Your task to perform on an android device: Go to Wikipedia Image 0: 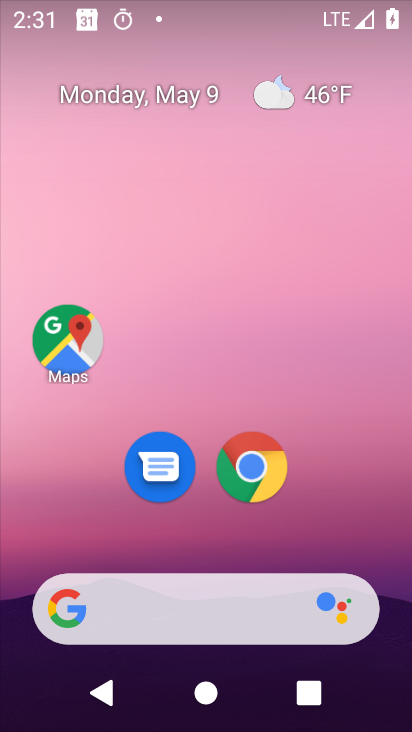
Step 0: drag from (342, 502) to (302, 106)
Your task to perform on an android device: Go to Wikipedia Image 1: 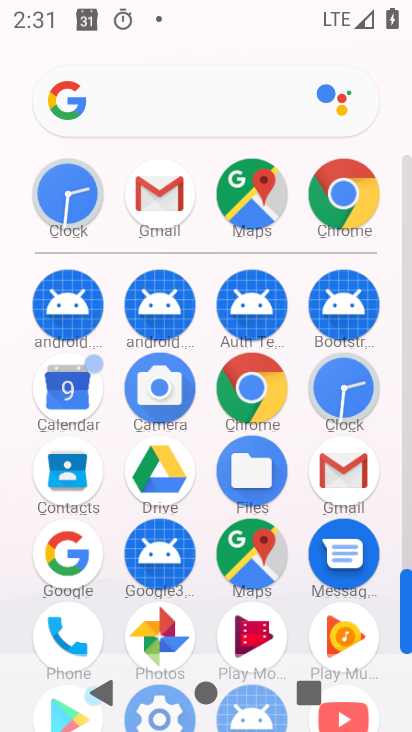
Step 1: click (259, 378)
Your task to perform on an android device: Go to Wikipedia Image 2: 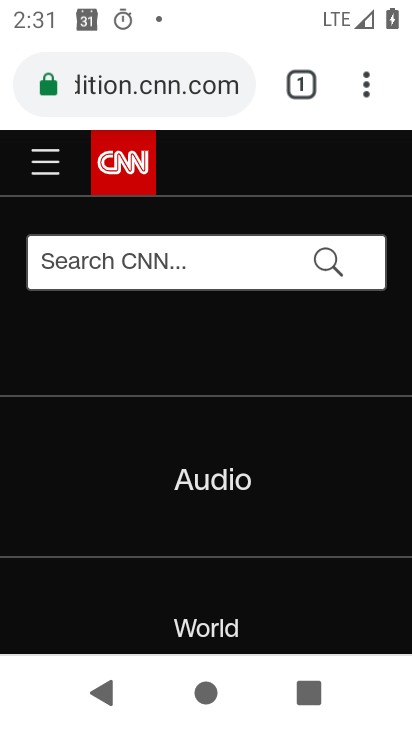
Step 2: click (203, 102)
Your task to perform on an android device: Go to Wikipedia Image 3: 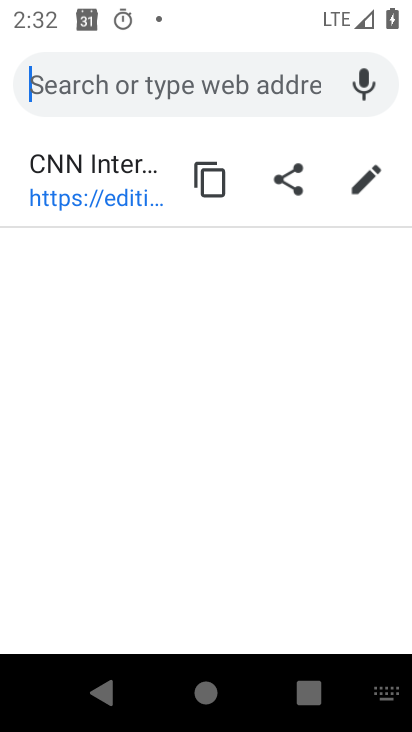
Step 3: type "wikipedia"
Your task to perform on an android device: Go to Wikipedia Image 4: 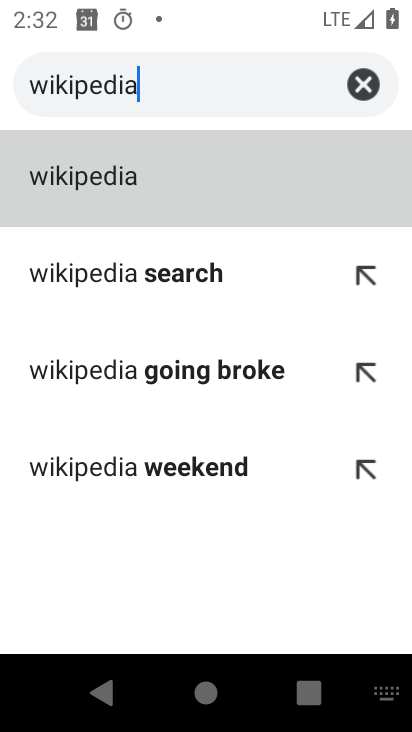
Step 4: click (154, 173)
Your task to perform on an android device: Go to Wikipedia Image 5: 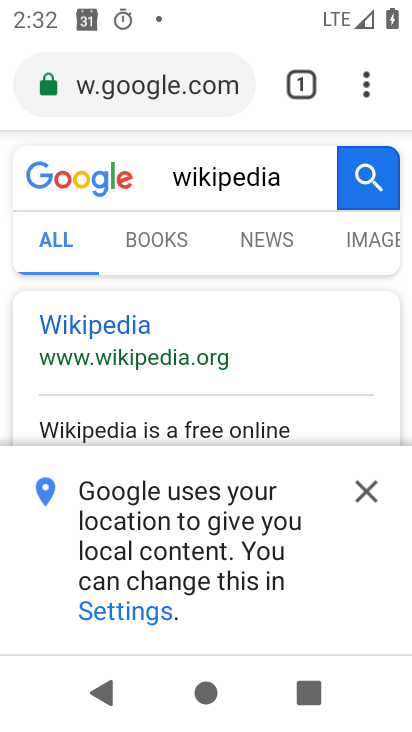
Step 5: click (109, 321)
Your task to perform on an android device: Go to Wikipedia Image 6: 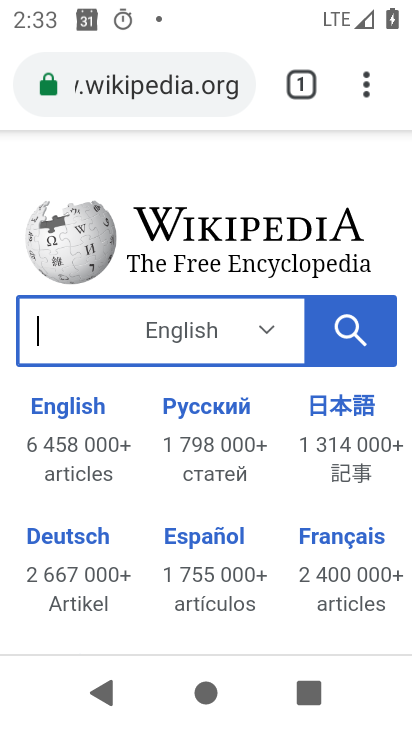
Step 6: task complete